Your task to perform on an android device: View the shopping cart on target.com. Add bose soundsport free to the cart on target.com, then select checkout. Image 0: 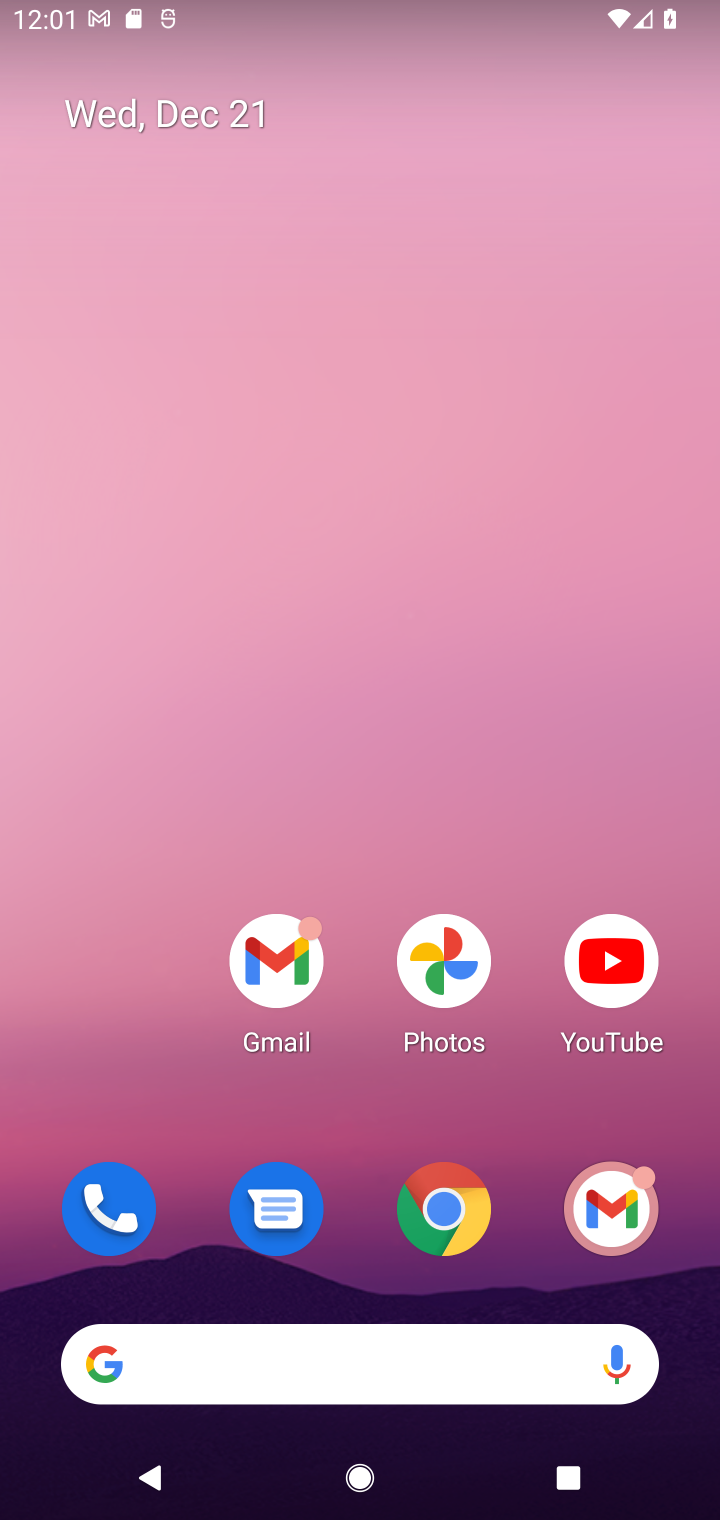
Step 0: click (448, 1215)
Your task to perform on an android device: View the shopping cart on target.com. Add bose soundsport free to the cart on target.com, then select checkout. Image 1: 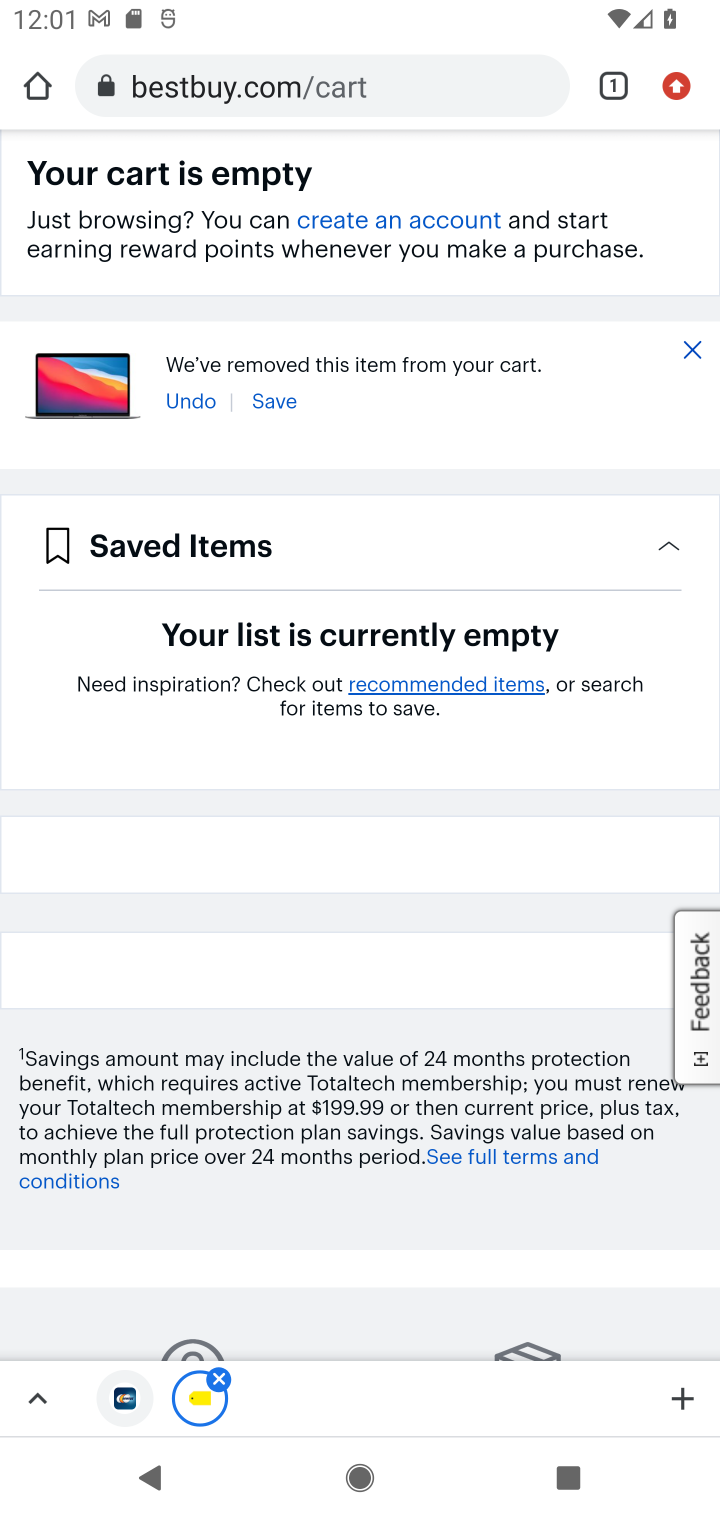
Step 1: click (217, 109)
Your task to perform on an android device: View the shopping cart on target.com. Add bose soundsport free to the cart on target.com, then select checkout. Image 2: 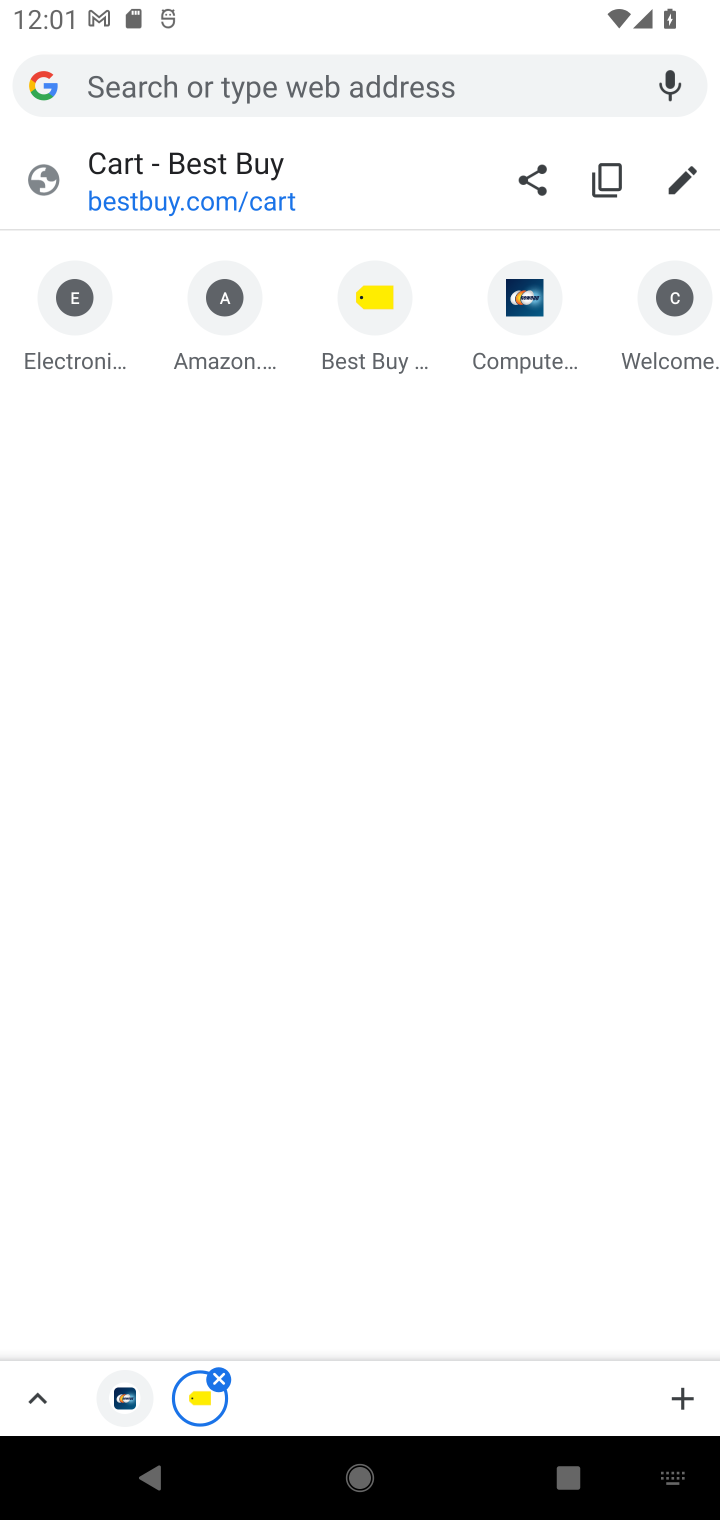
Step 2: type "target.com"
Your task to perform on an android device: View the shopping cart on target.com. Add bose soundsport free to the cart on target.com, then select checkout. Image 3: 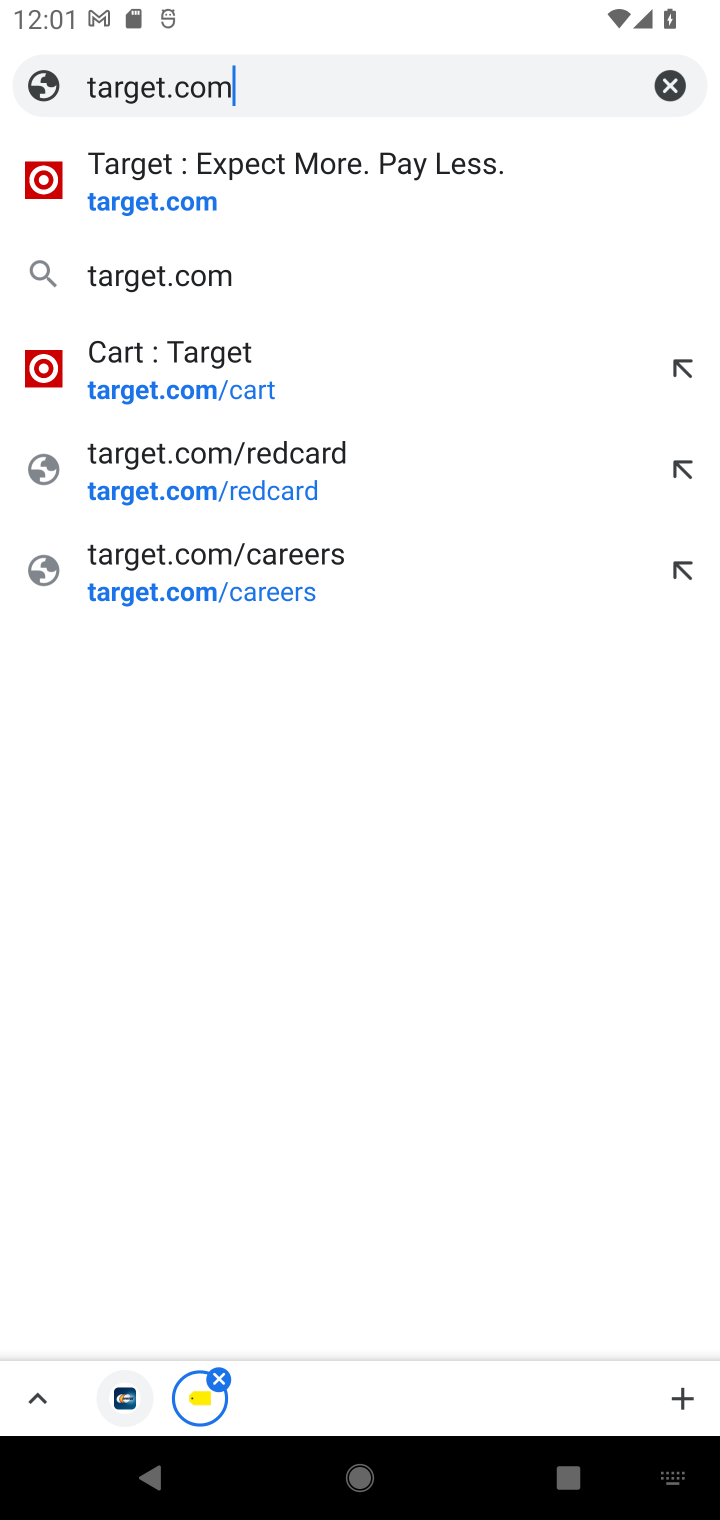
Step 3: click (134, 193)
Your task to perform on an android device: View the shopping cart on target.com. Add bose soundsport free to the cart on target.com, then select checkout. Image 4: 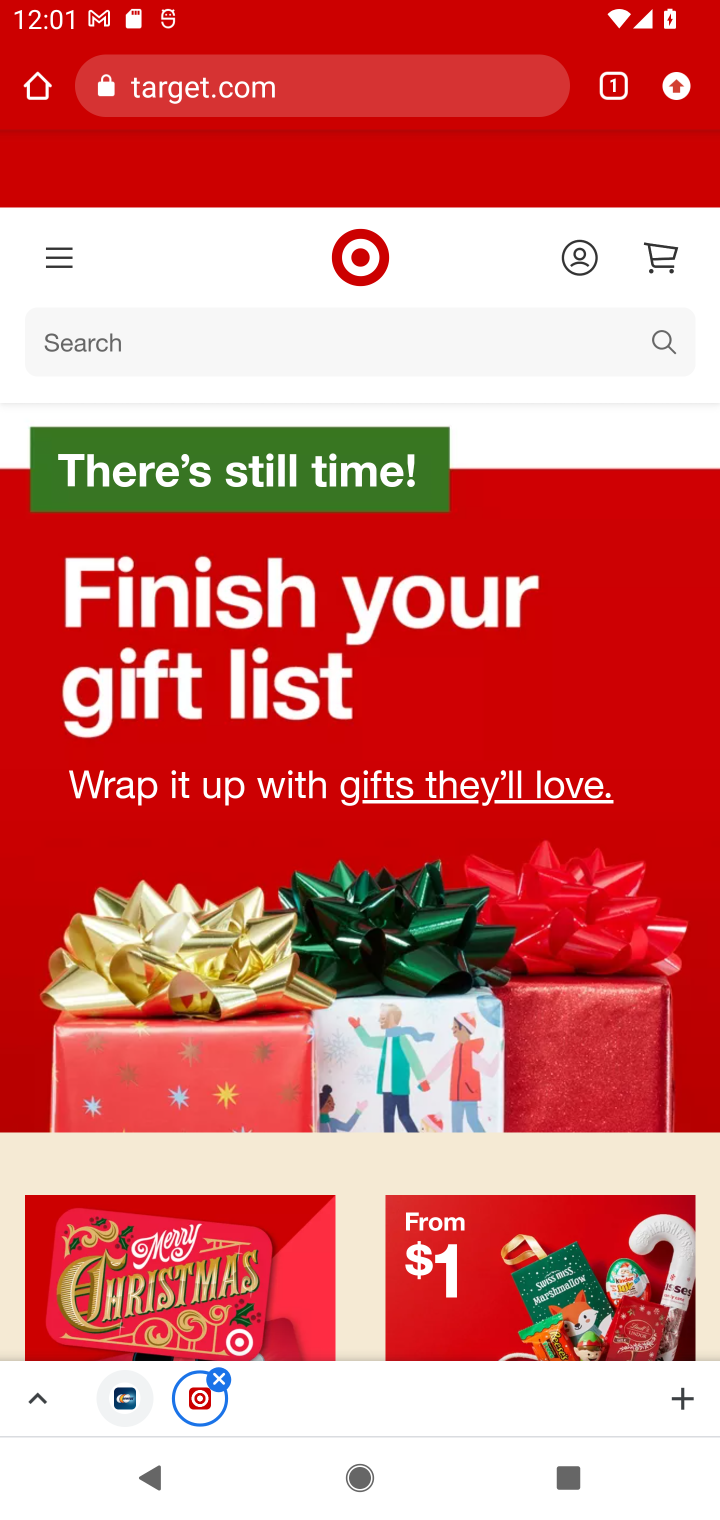
Step 4: click (661, 263)
Your task to perform on an android device: View the shopping cart on target.com. Add bose soundsport free to the cart on target.com, then select checkout. Image 5: 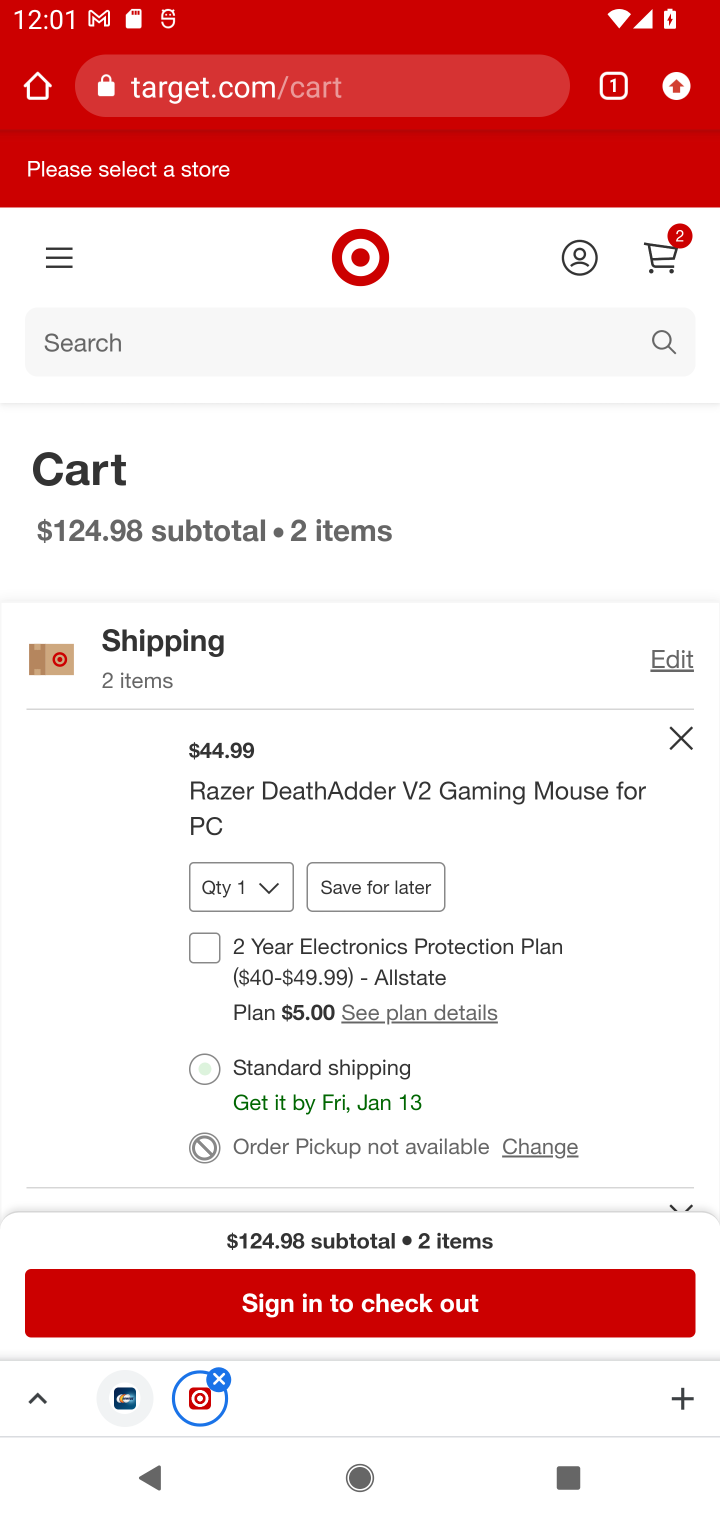
Step 5: drag from (476, 950) to (523, 606)
Your task to perform on an android device: View the shopping cart on target.com. Add bose soundsport free to the cart on target.com, then select checkout. Image 6: 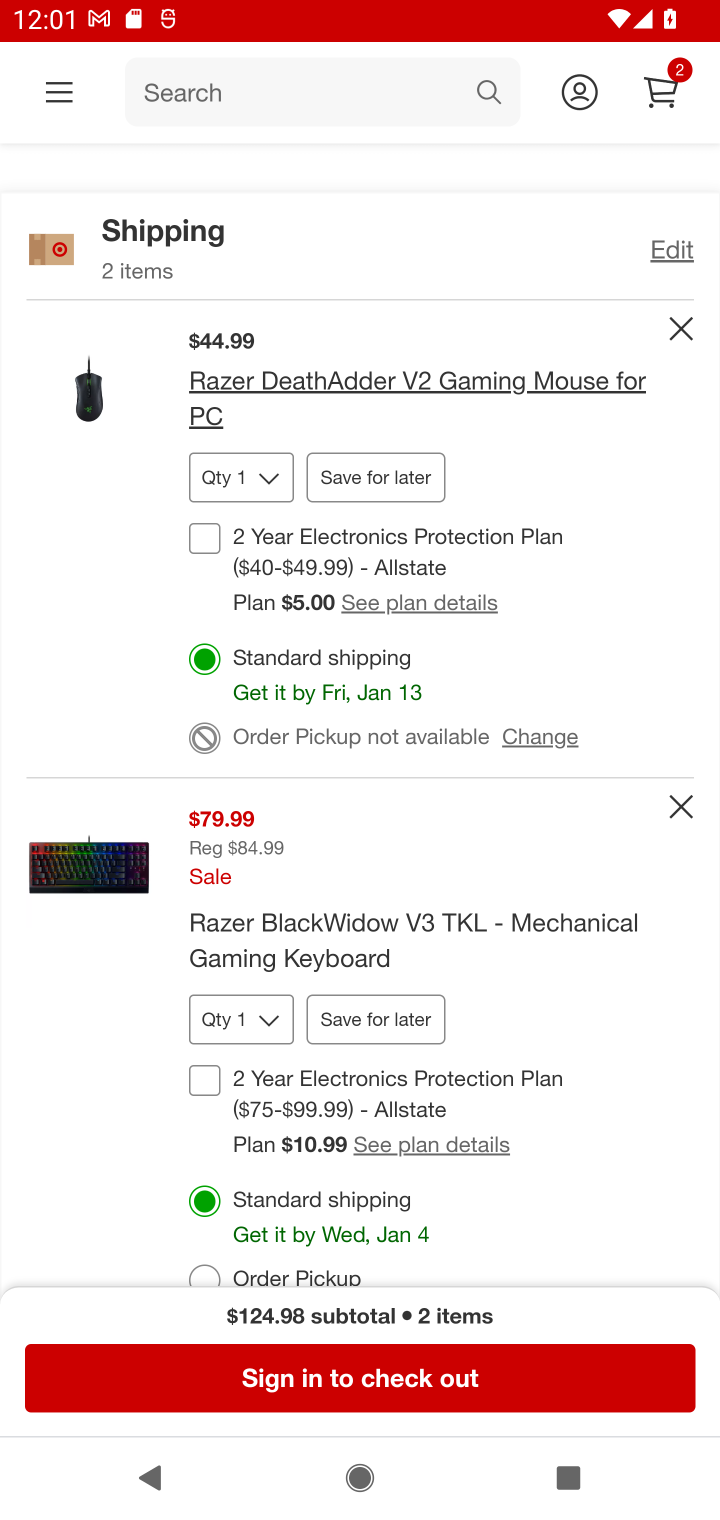
Step 6: click (483, 95)
Your task to perform on an android device: View the shopping cart on target.com. Add bose soundsport free to the cart on target.com, then select checkout. Image 7: 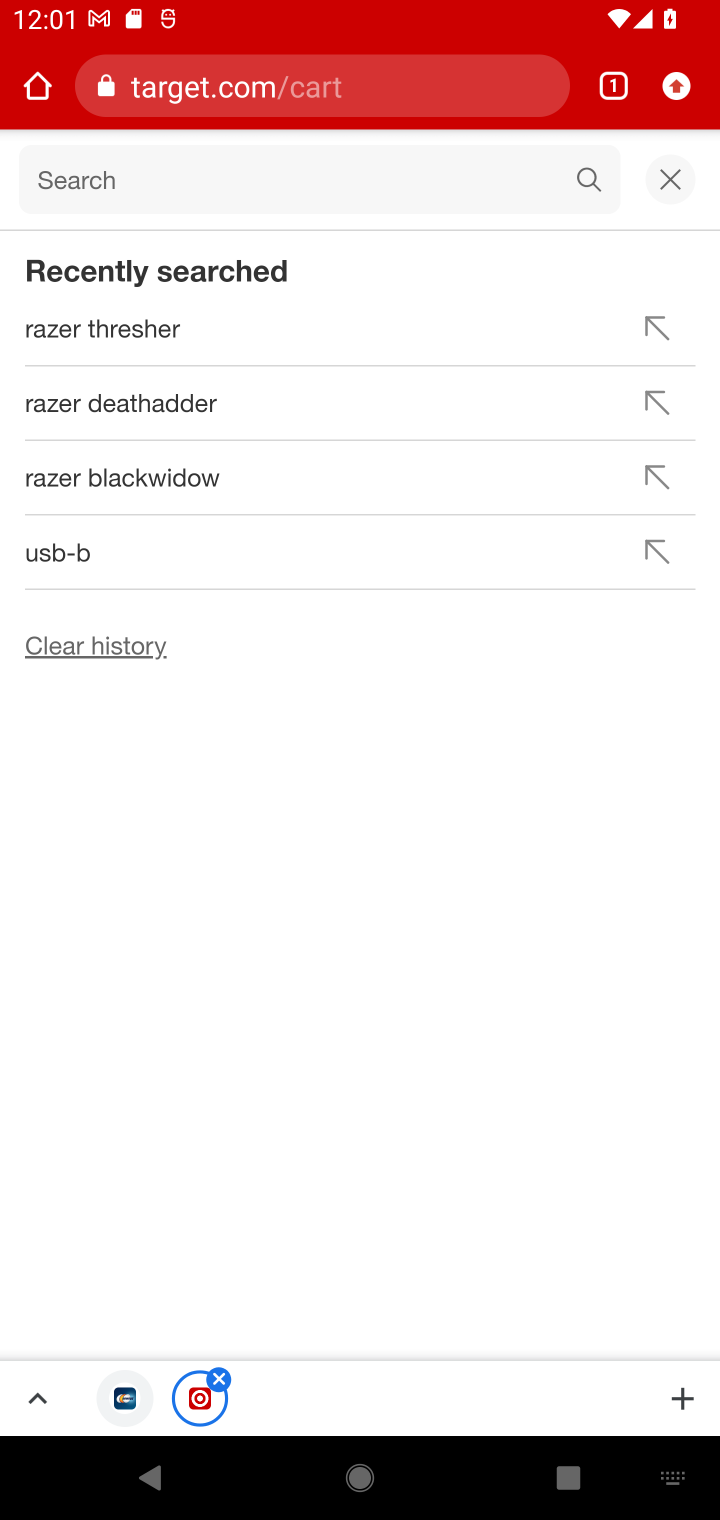
Step 7: type "bose soundsport free"
Your task to perform on an android device: View the shopping cart on target.com. Add bose soundsport free to the cart on target.com, then select checkout. Image 8: 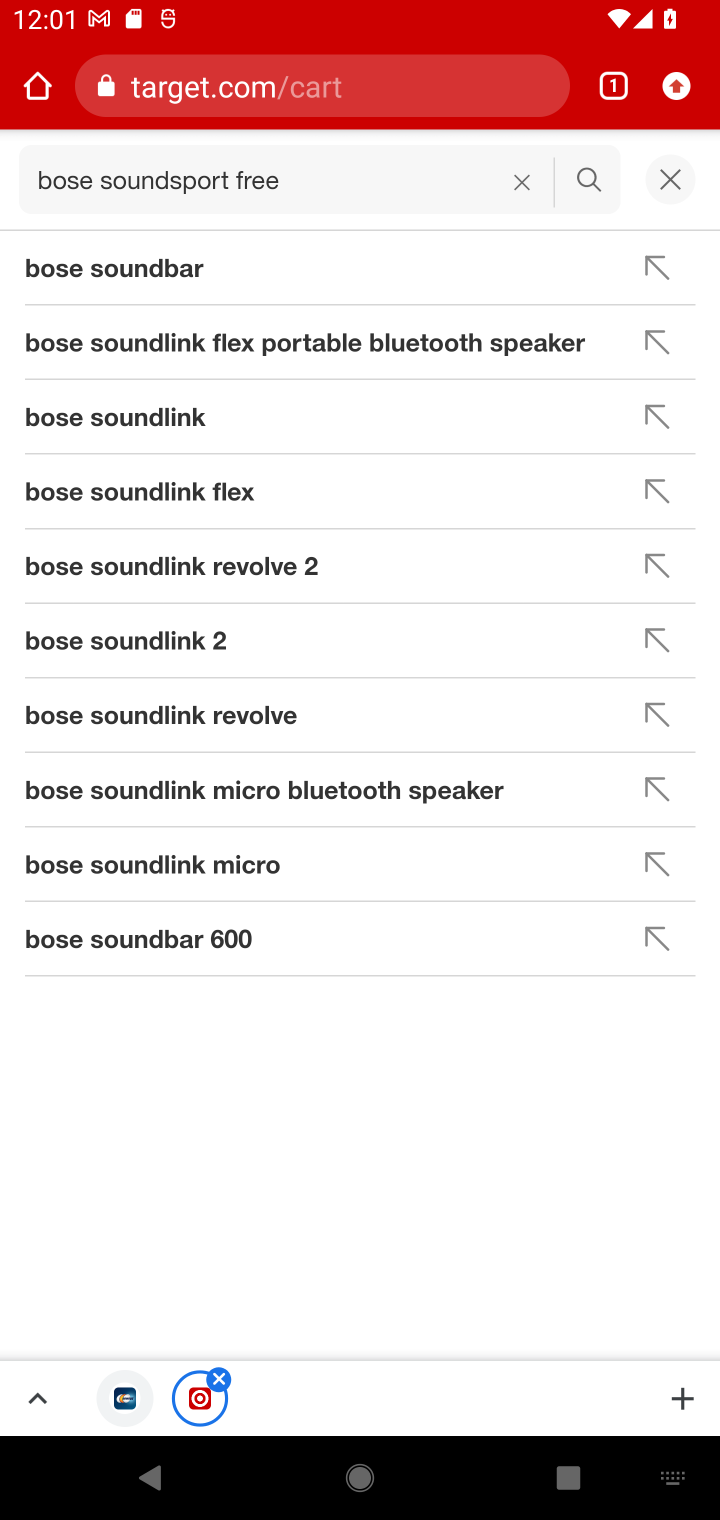
Step 8: click (582, 178)
Your task to perform on an android device: View the shopping cart on target.com. Add bose soundsport free to the cart on target.com, then select checkout. Image 9: 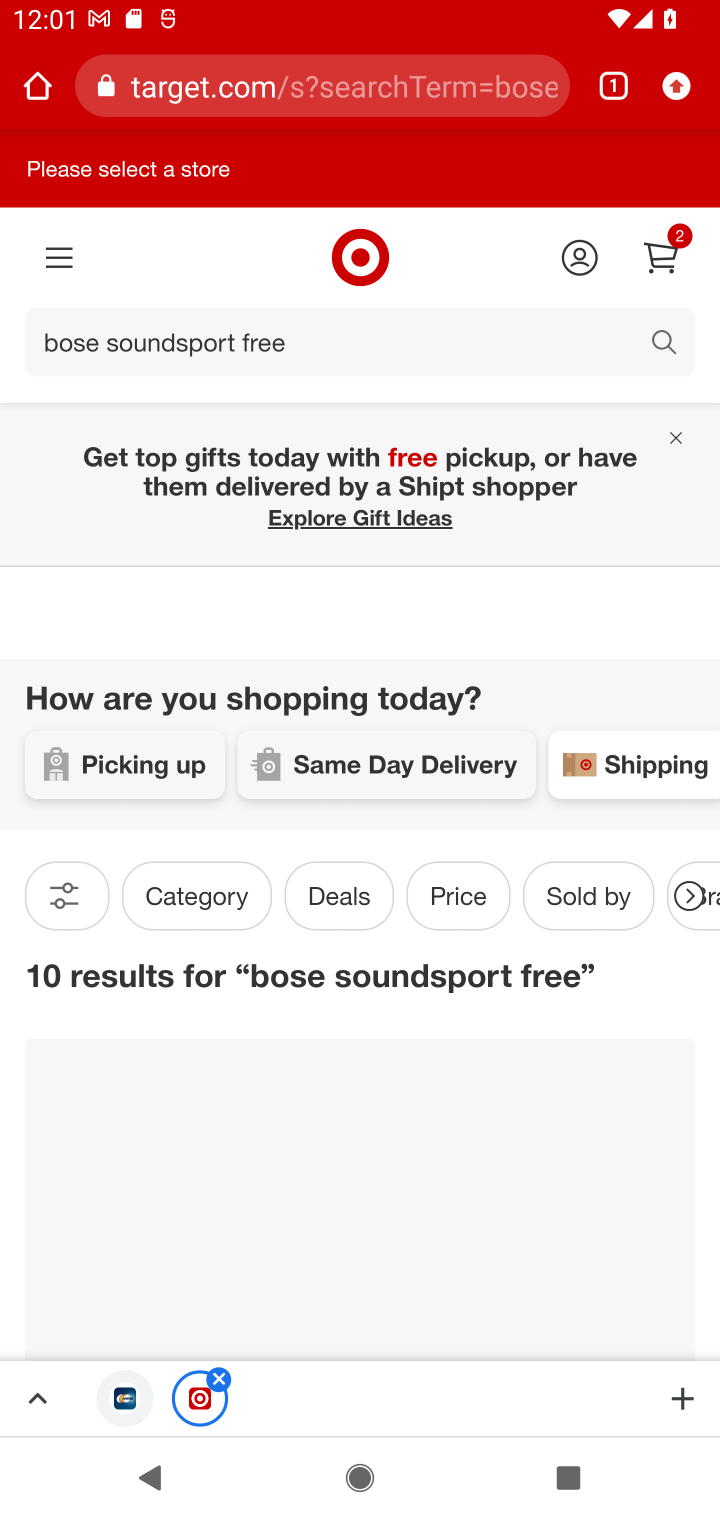
Step 9: task complete